Your task to perform on an android device: turn off wifi Image 0: 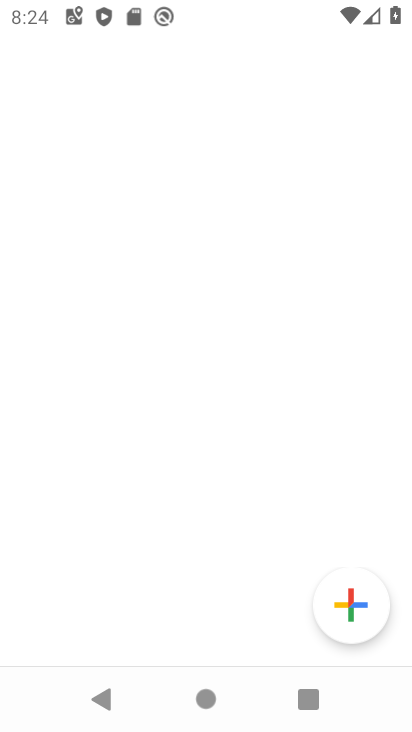
Step 0: press home button
Your task to perform on an android device: turn off wifi Image 1: 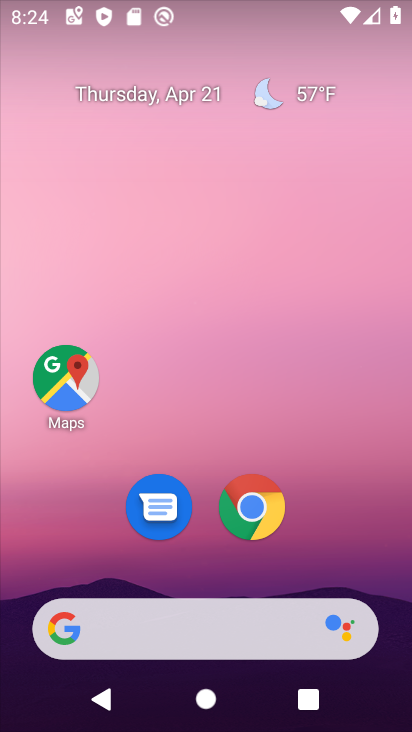
Step 1: drag from (355, 16) to (262, 550)
Your task to perform on an android device: turn off wifi Image 2: 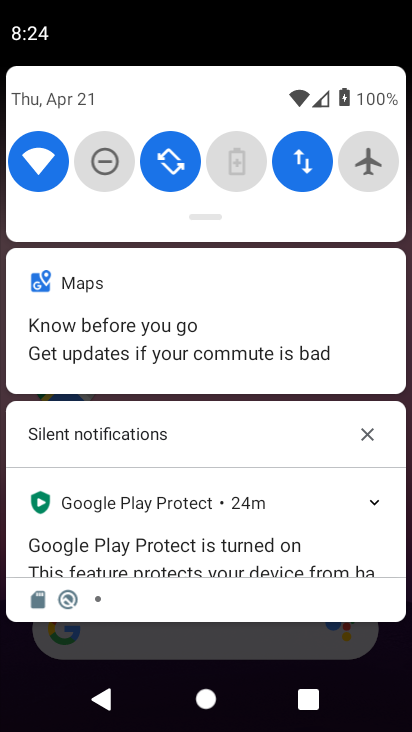
Step 2: click (47, 161)
Your task to perform on an android device: turn off wifi Image 3: 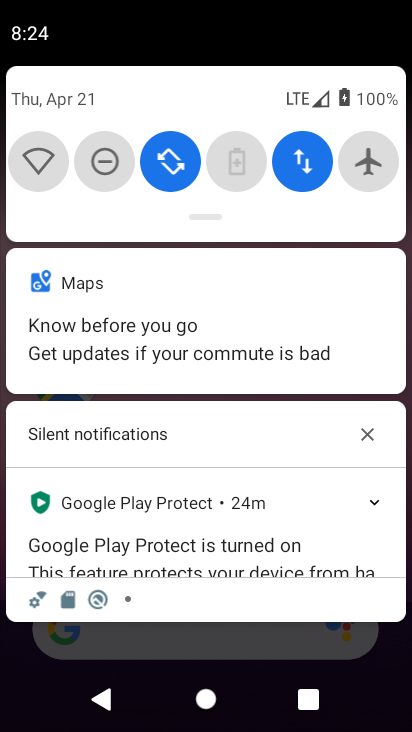
Step 3: task complete